Your task to perform on an android device: toggle show notifications on the lock screen Image 0: 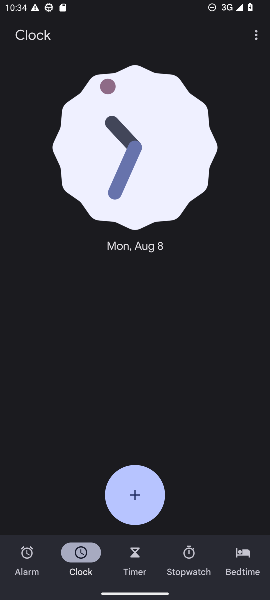
Step 0: press home button
Your task to perform on an android device: toggle show notifications on the lock screen Image 1: 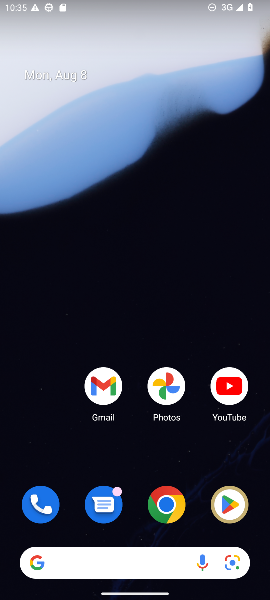
Step 1: drag from (111, 473) to (118, 73)
Your task to perform on an android device: toggle show notifications on the lock screen Image 2: 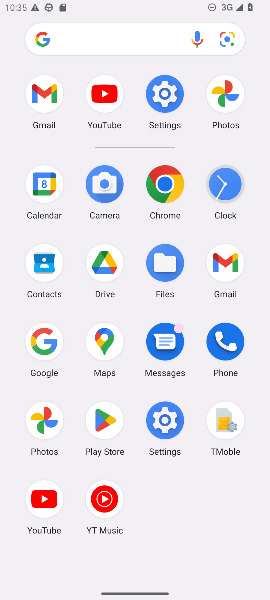
Step 2: click (167, 419)
Your task to perform on an android device: toggle show notifications on the lock screen Image 3: 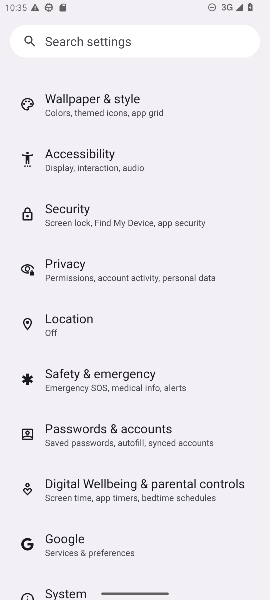
Step 3: drag from (95, 172) to (64, 585)
Your task to perform on an android device: toggle show notifications on the lock screen Image 4: 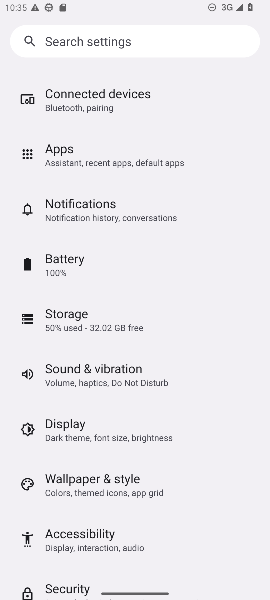
Step 4: click (105, 209)
Your task to perform on an android device: toggle show notifications on the lock screen Image 5: 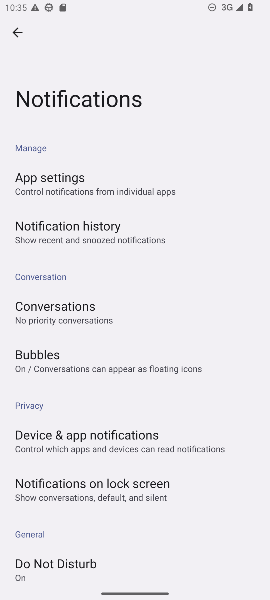
Step 5: drag from (102, 479) to (107, 365)
Your task to perform on an android device: toggle show notifications on the lock screen Image 6: 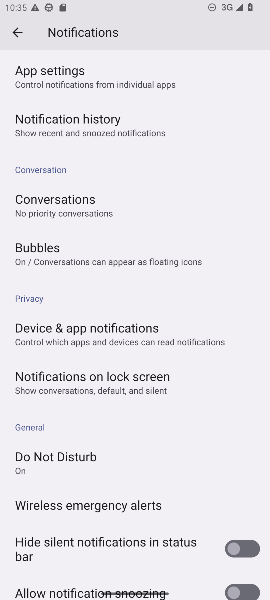
Step 6: click (78, 398)
Your task to perform on an android device: toggle show notifications on the lock screen Image 7: 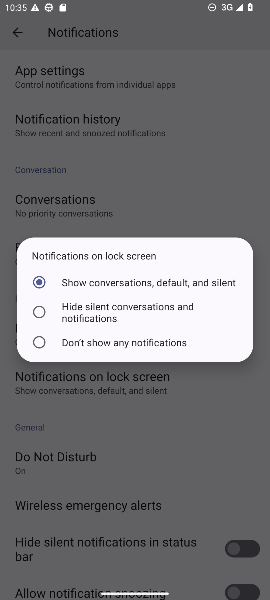
Step 7: task complete